Your task to perform on an android device: open chrome and create a bookmark for the current page Image 0: 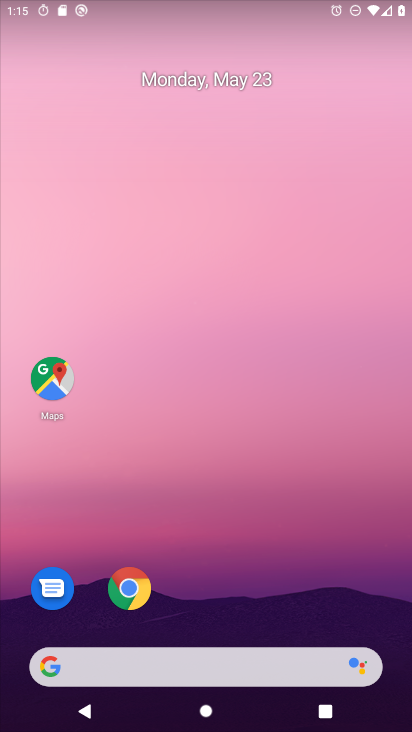
Step 0: drag from (257, 694) to (221, 139)
Your task to perform on an android device: open chrome and create a bookmark for the current page Image 1: 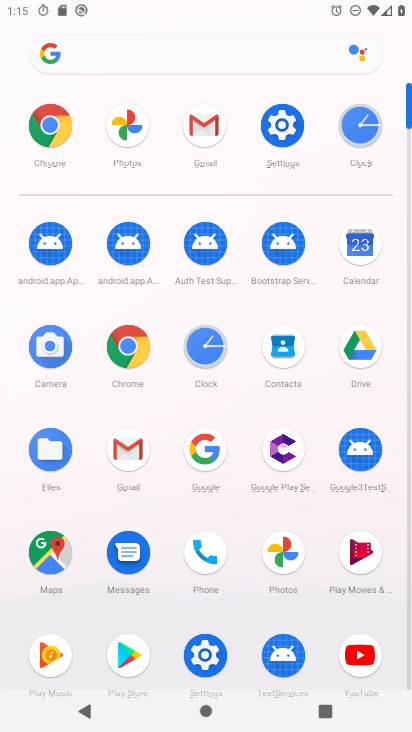
Step 1: click (37, 127)
Your task to perform on an android device: open chrome and create a bookmark for the current page Image 2: 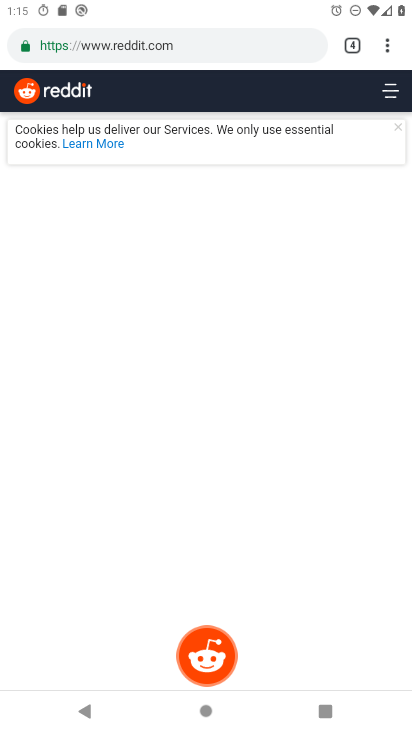
Step 2: click (390, 38)
Your task to perform on an android device: open chrome and create a bookmark for the current page Image 3: 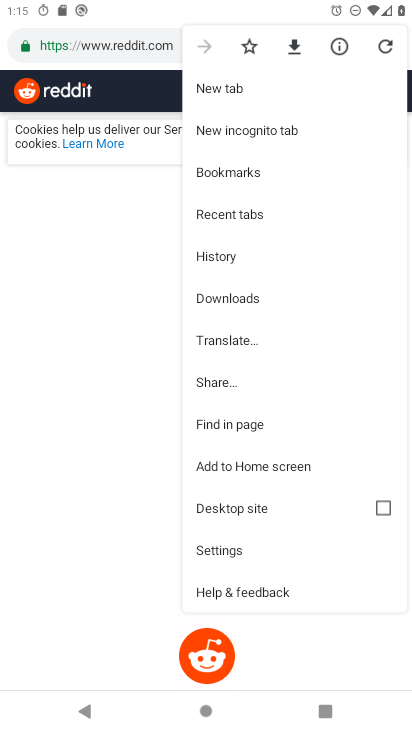
Step 3: click (234, 167)
Your task to perform on an android device: open chrome and create a bookmark for the current page Image 4: 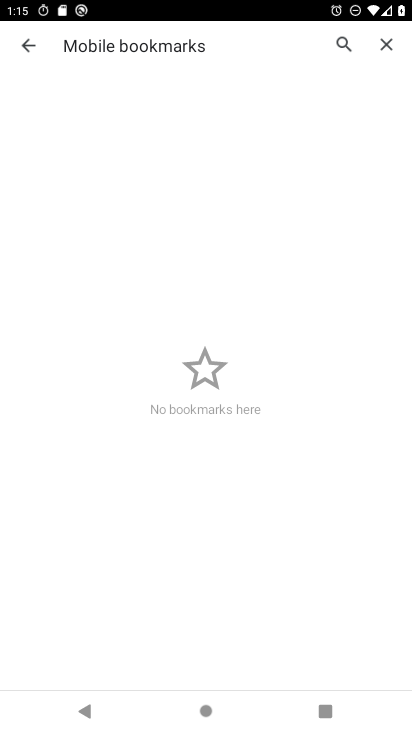
Step 4: task complete